Your task to perform on an android device: turn on javascript in the chrome app Image 0: 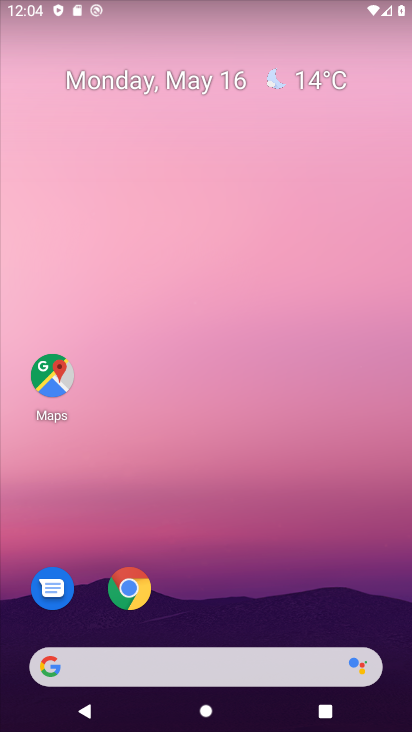
Step 0: click (126, 585)
Your task to perform on an android device: turn on javascript in the chrome app Image 1: 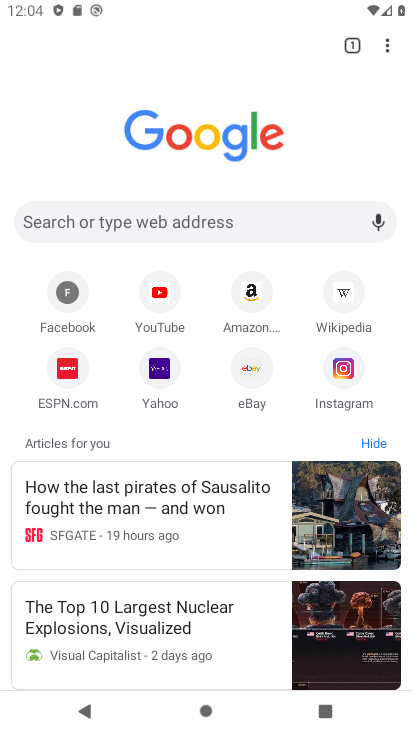
Step 1: click (388, 45)
Your task to perform on an android device: turn on javascript in the chrome app Image 2: 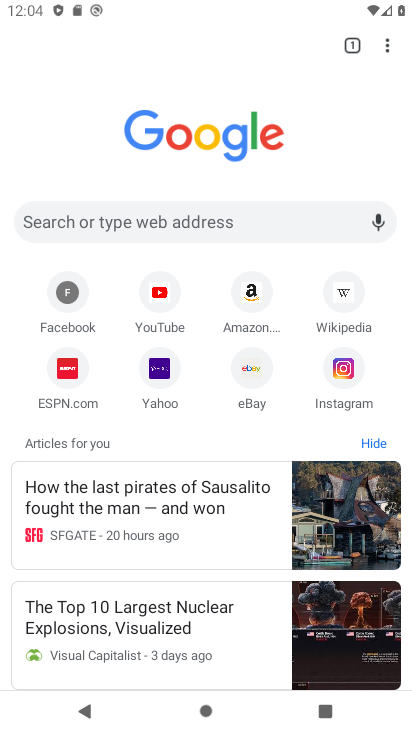
Step 2: click (386, 45)
Your task to perform on an android device: turn on javascript in the chrome app Image 3: 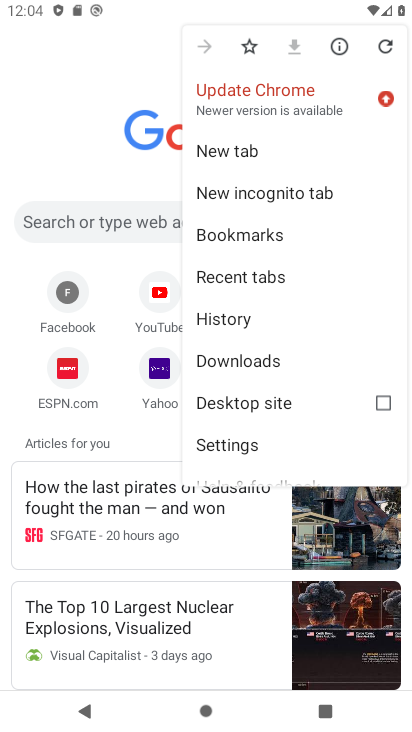
Step 3: click (243, 438)
Your task to perform on an android device: turn on javascript in the chrome app Image 4: 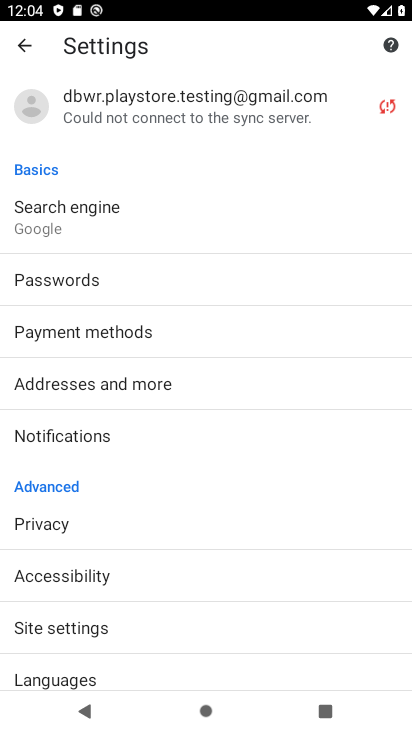
Step 4: click (70, 639)
Your task to perform on an android device: turn on javascript in the chrome app Image 5: 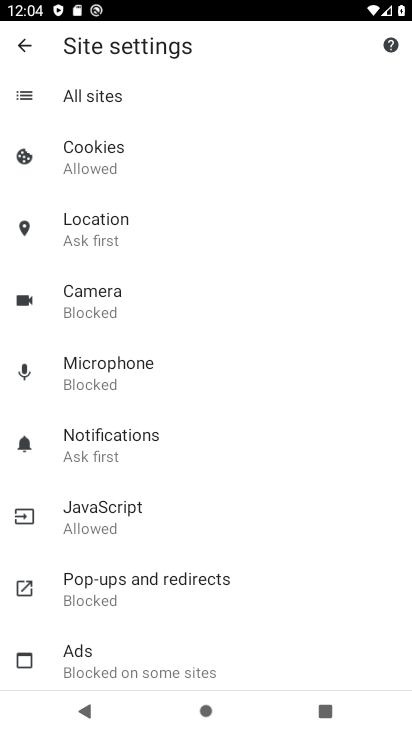
Step 5: click (116, 510)
Your task to perform on an android device: turn on javascript in the chrome app Image 6: 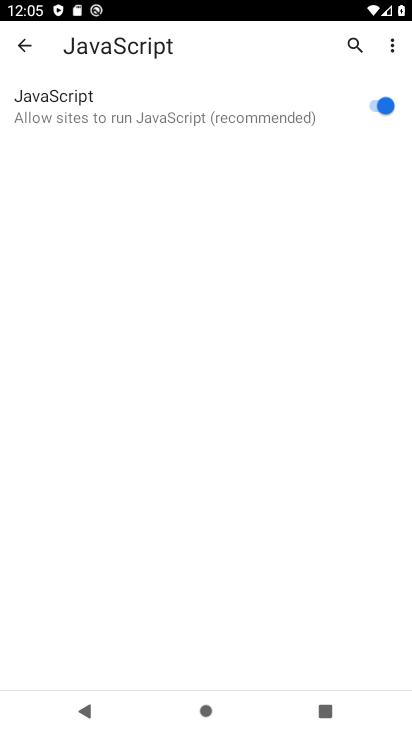
Step 6: task complete